Your task to perform on an android device: open app "Walmart Shopping & Grocery" (install if not already installed) and go to login screen Image 0: 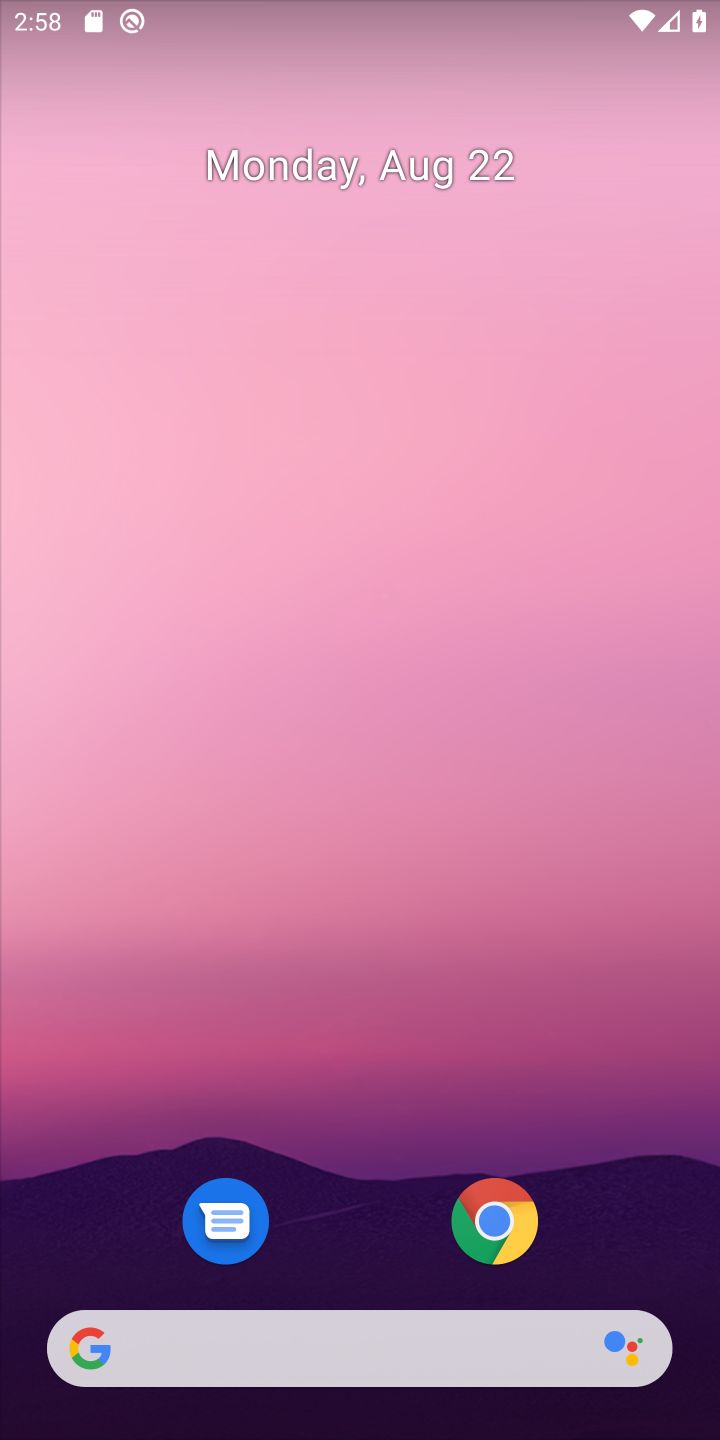
Step 0: press home button
Your task to perform on an android device: open app "Walmart Shopping & Grocery" (install if not already installed) and go to login screen Image 1: 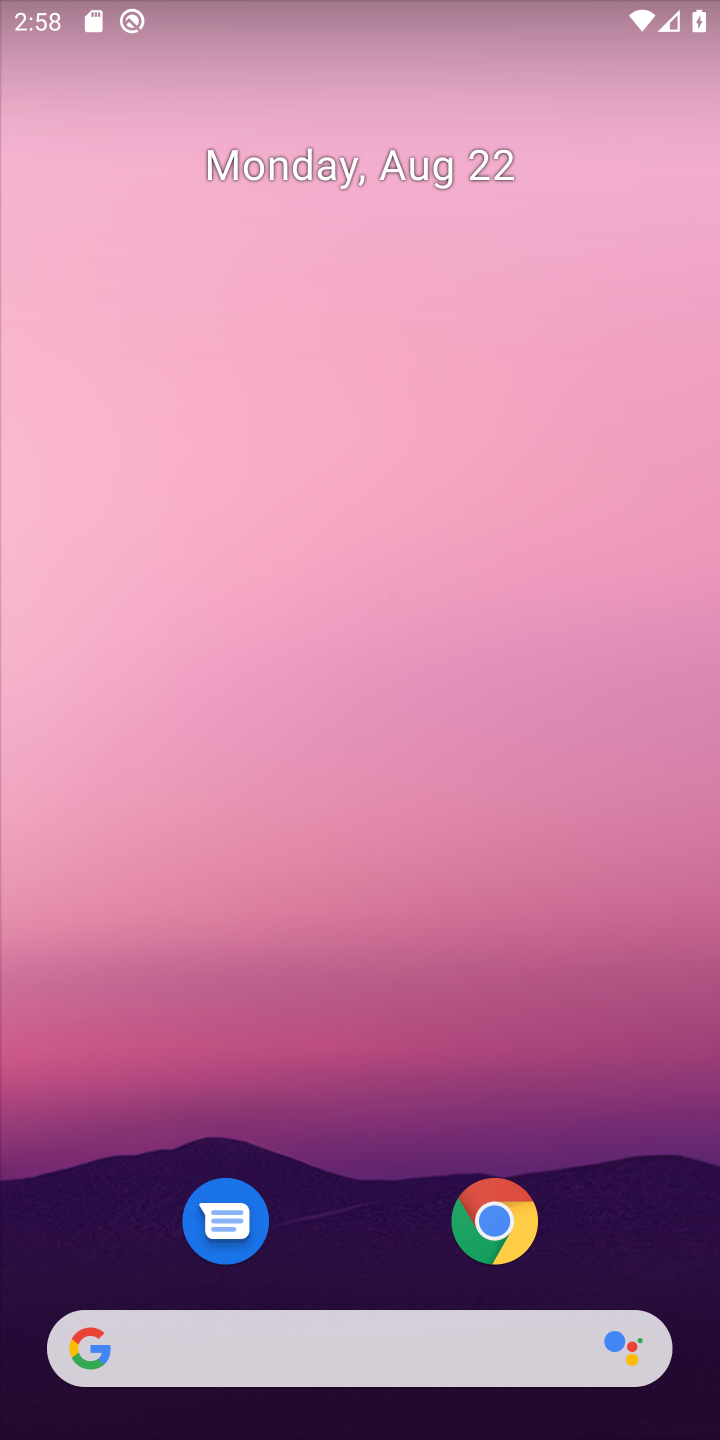
Step 1: press home button
Your task to perform on an android device: open app "Walmart Shopping & Grocery" (install if not already installed) and go to login screen Image 2: 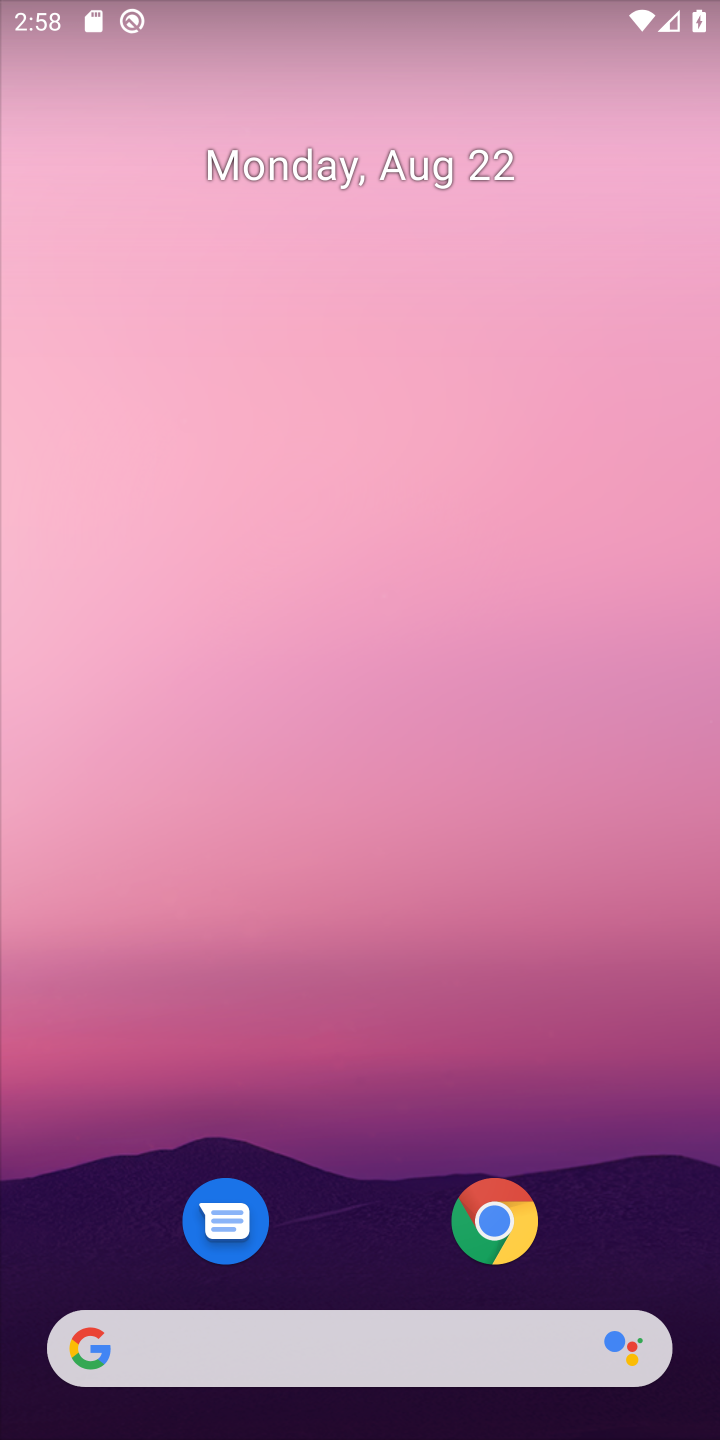
Step 2: drag from (408, 1234) to (501, 325)
Your task to perform on an android device: open app "Walmart Shopping & Grocery" (install if not already installed) and go to login screen Image 3: 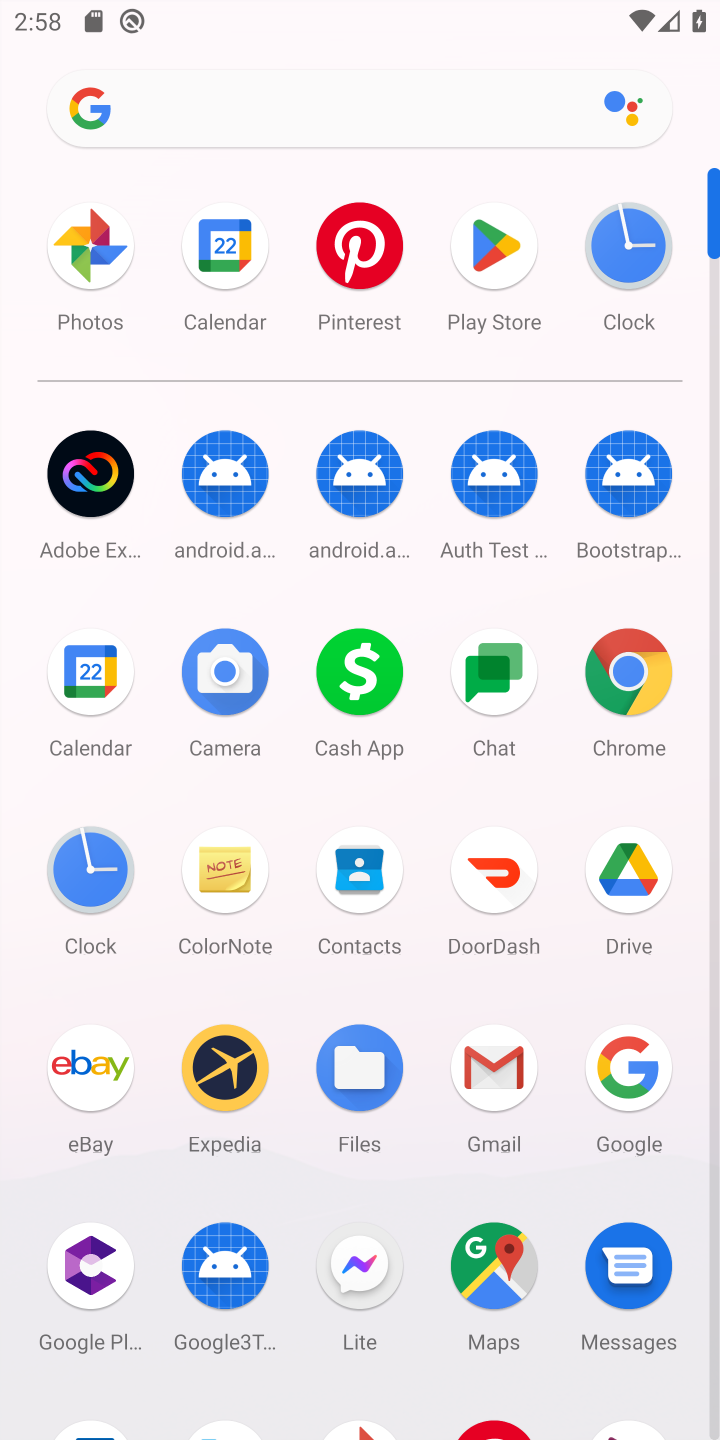
Step 3: click (491, 244)
Your task to perform on an android device: open app "Walmart Shopping & Grocery" (install if not already installed) and go to login screen Image 4: 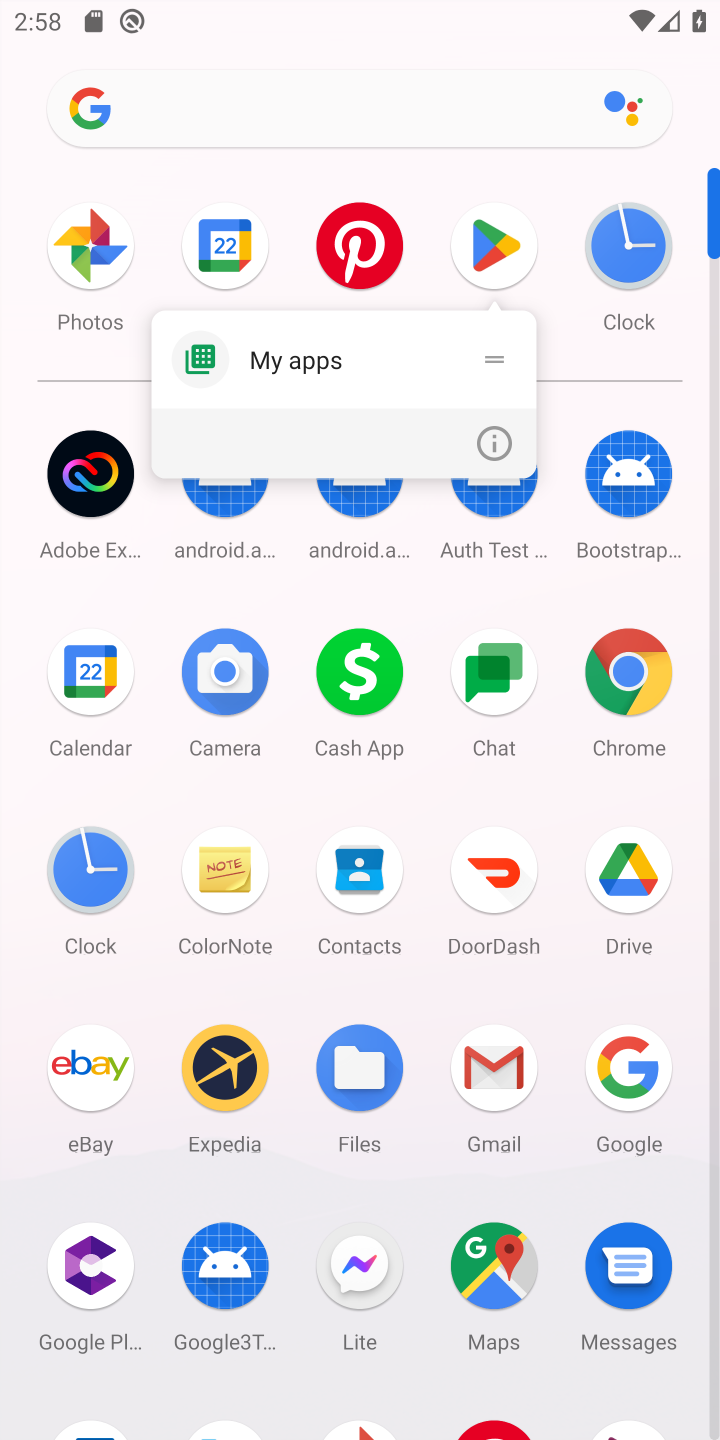
Step 4: click (490, 237)
Your task to perform on an android device: open app "Walmart Shopping & Grocery" (install if not already installed) and go to login screen Image 5: 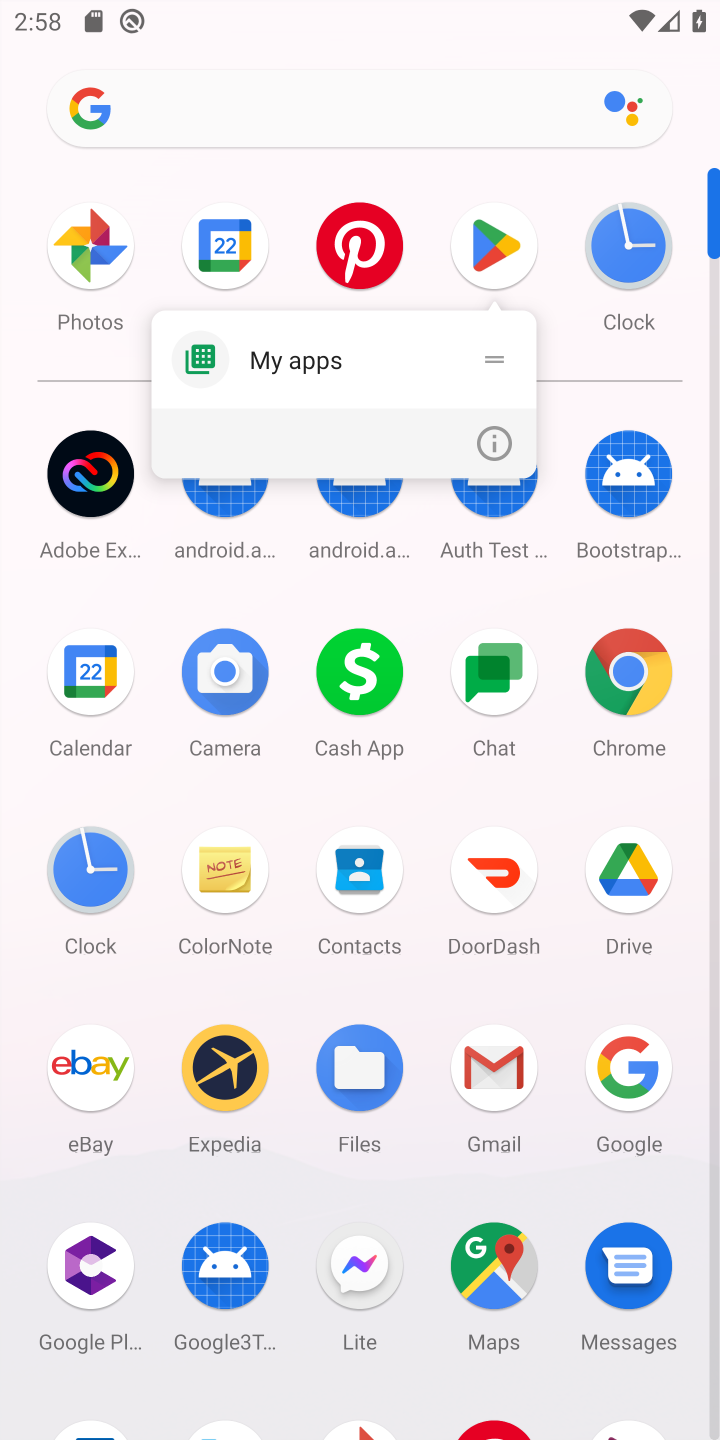
Step 5: click (490, 242)
Your task to perform on an android device: open app "Walmart Shopping & Grocery" (install if not already installed) and go to login screen Image 6: 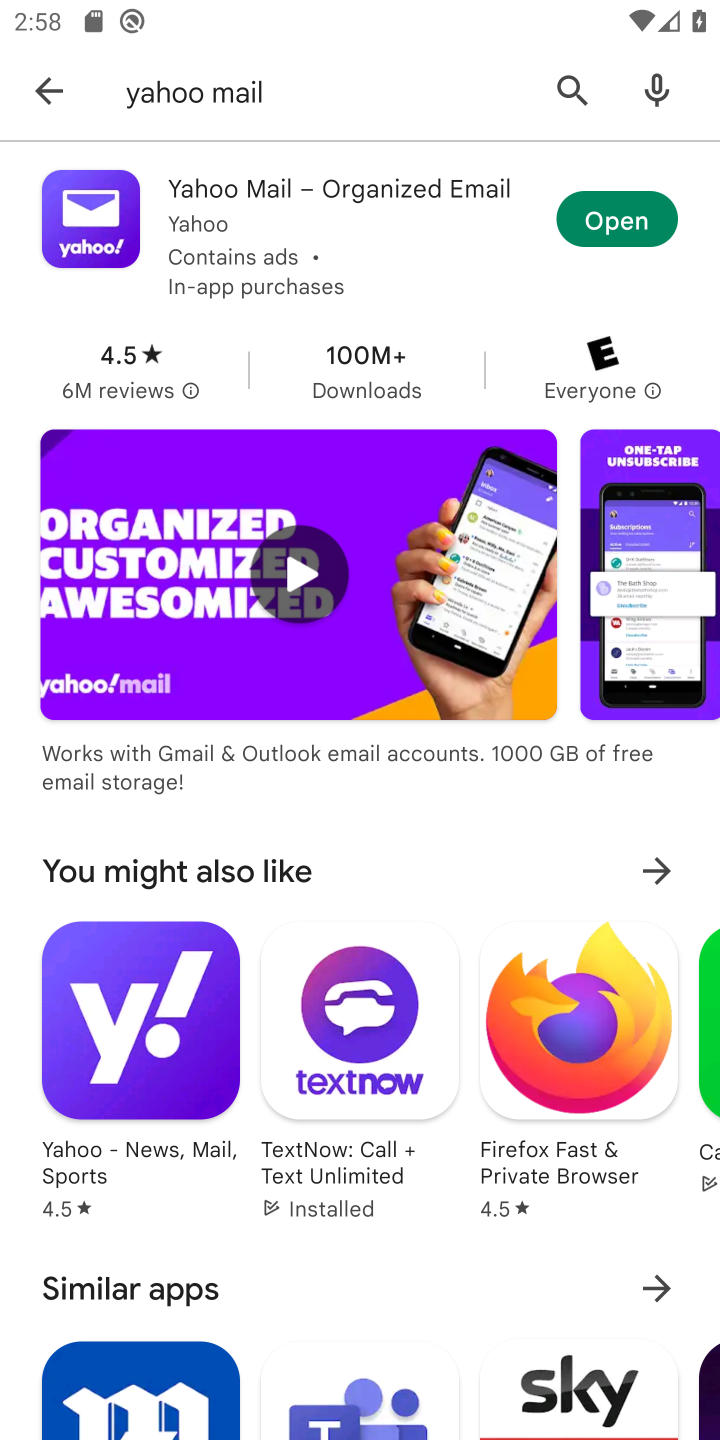
Step 6: click (575, 94)
Your task to perform on an android device: open app "Walmart Shopping & Grocery" (install if not already installed) and go to login screen Image 7: 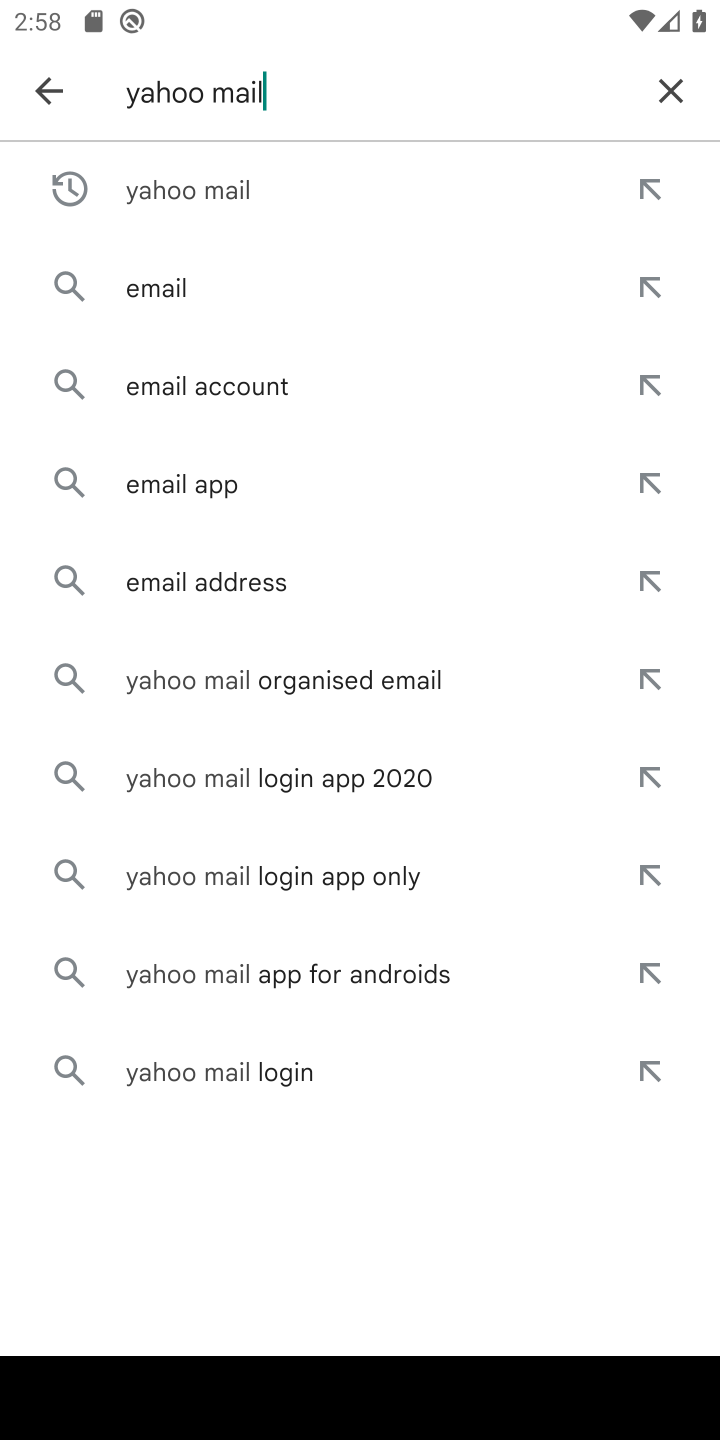
Step 7: click (669, 94)
Your task to perform on an android device: open app "Walmart Shopping & Grocery" (install if not already installed) and go to login screen Image 8: 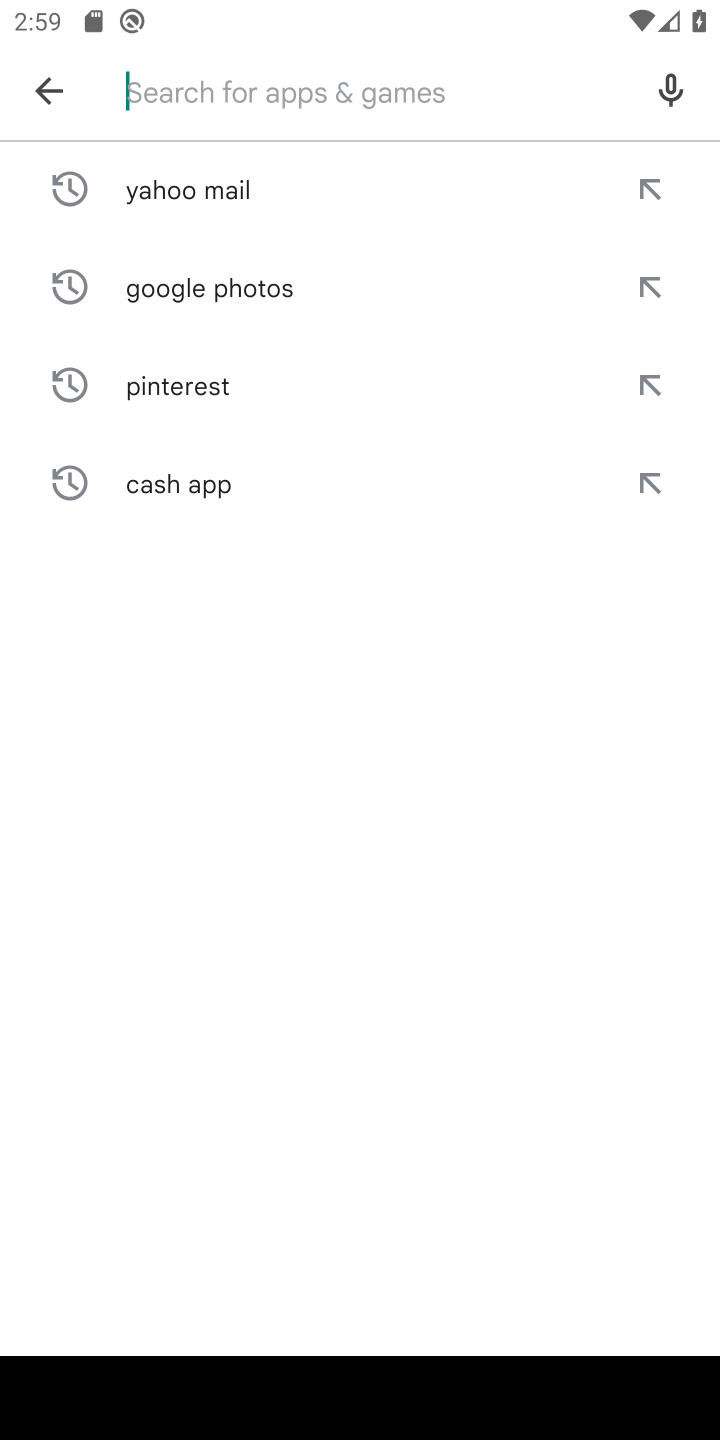
Step 8: type "Walmart Shopping & Grocery"
Your task to perform on an android device: open app "Walmart Shopping & Grocery" (install if not already installed) and go to login screen Image 9: 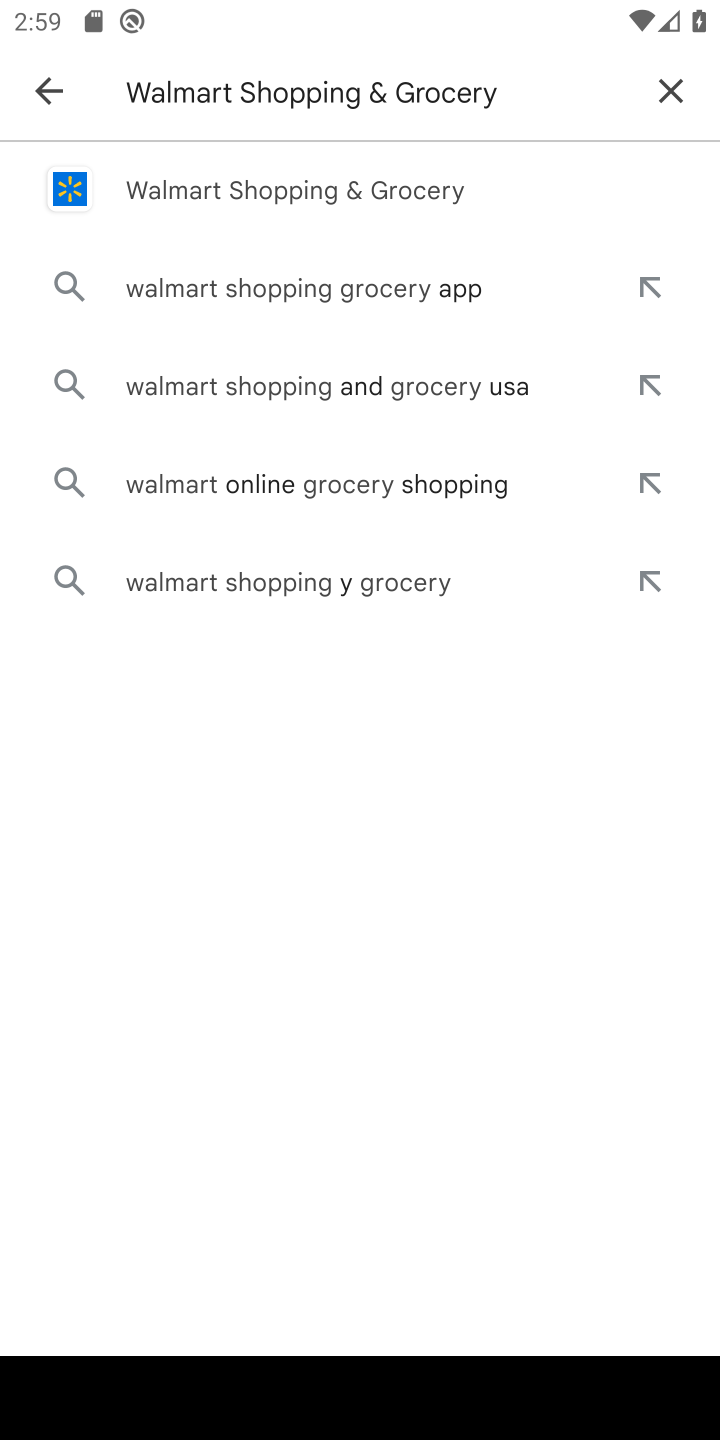
Step 9: click (294, 181)
Your task to perform on an android device: open app "Walmart Shopping & Grocery" (install if not already installed) and go to login screen Image 10: 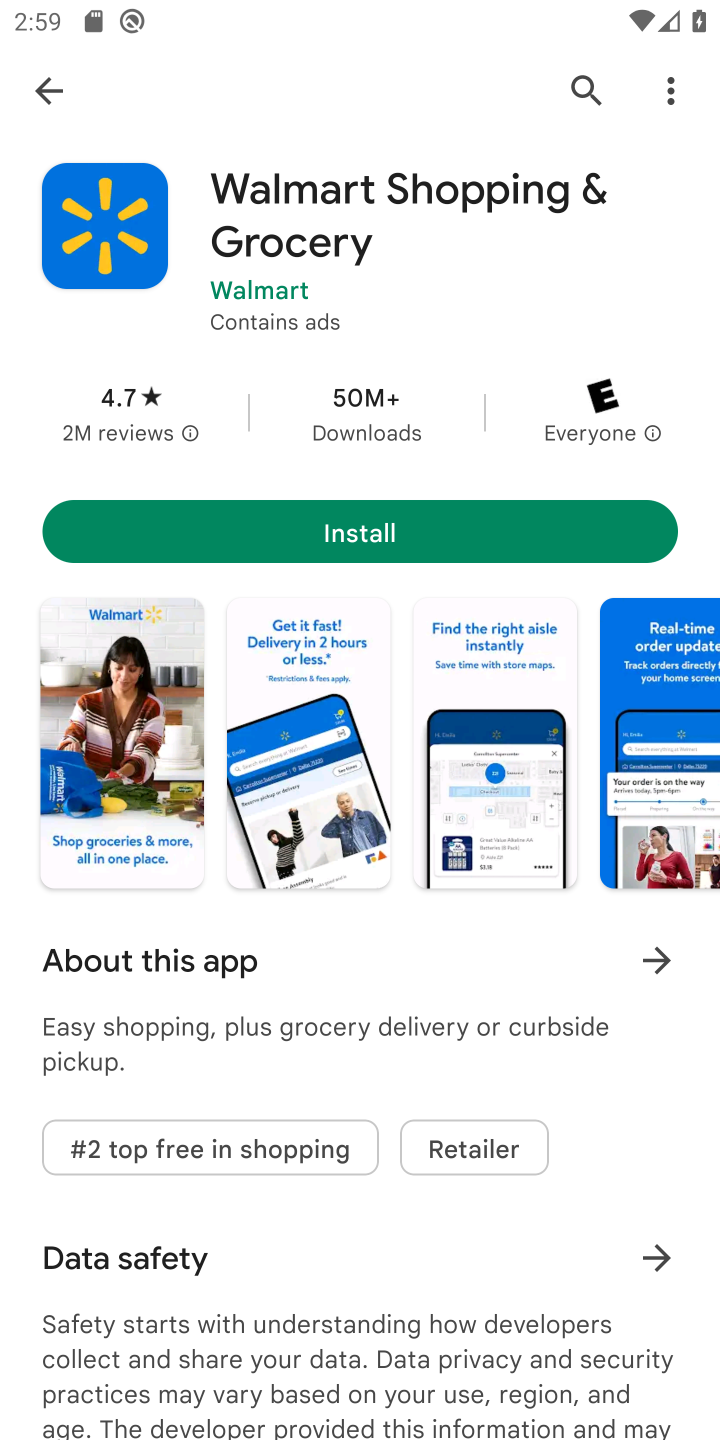
Step 10: click (383, 515)
Your task to perform on an android device: open app "Walmart Shopping & Grocery" (install if not already installed) and go to login screen Image 11: 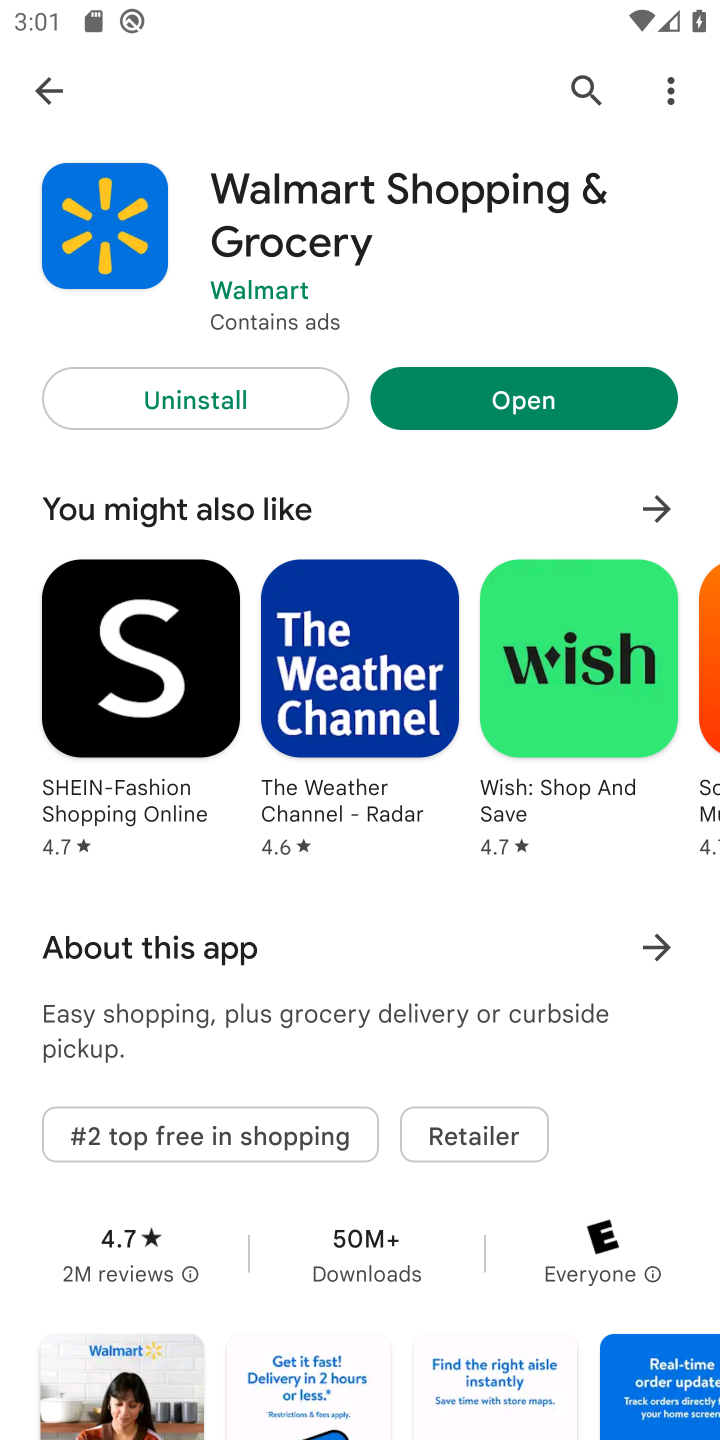
Step 11: click (525, 400)
Your task to perform on an android device: open app "Walmart Shopping & Grocery" (install if not already installed) and go to login screen Image 12: 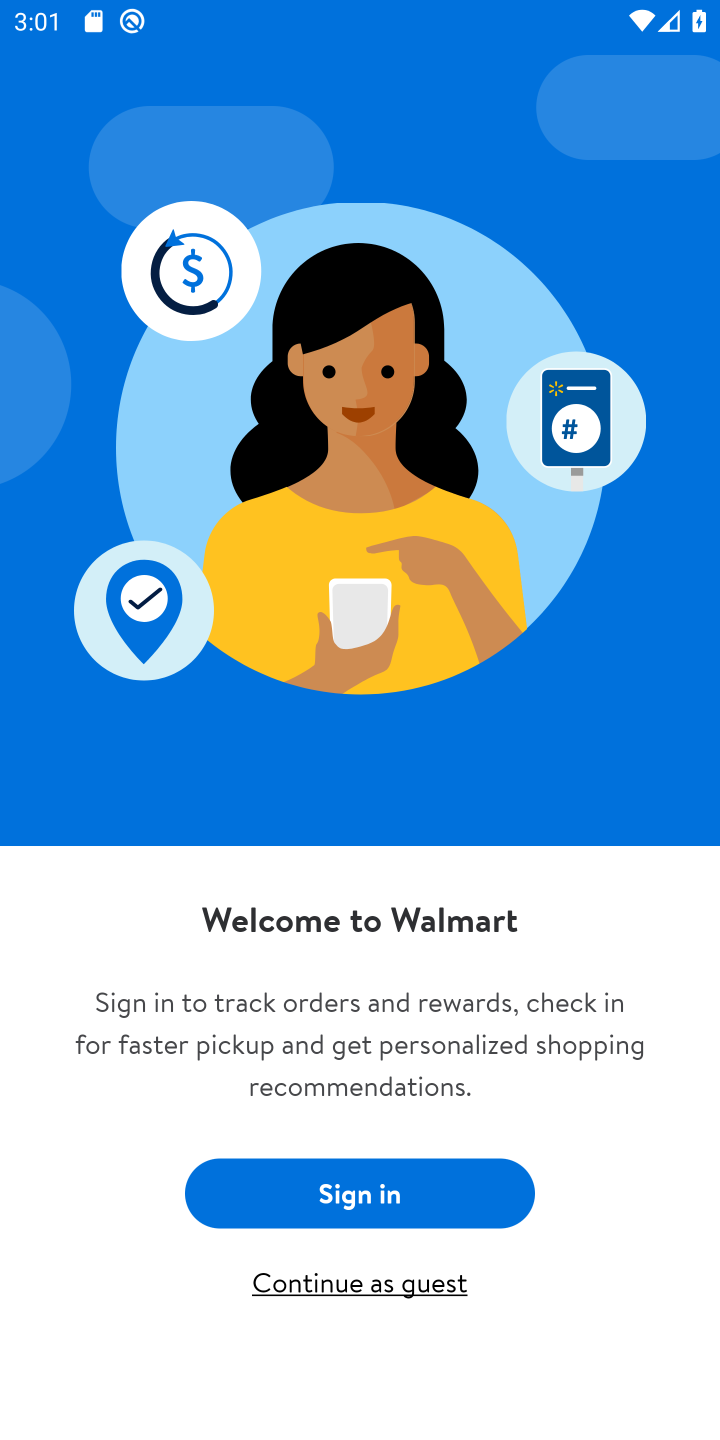
Step 12: click (367, 1190)
Your task to perform on an android device: open app "Walmart Shopping & Grocery" (install if not already installed) and go to login screen Image 13: 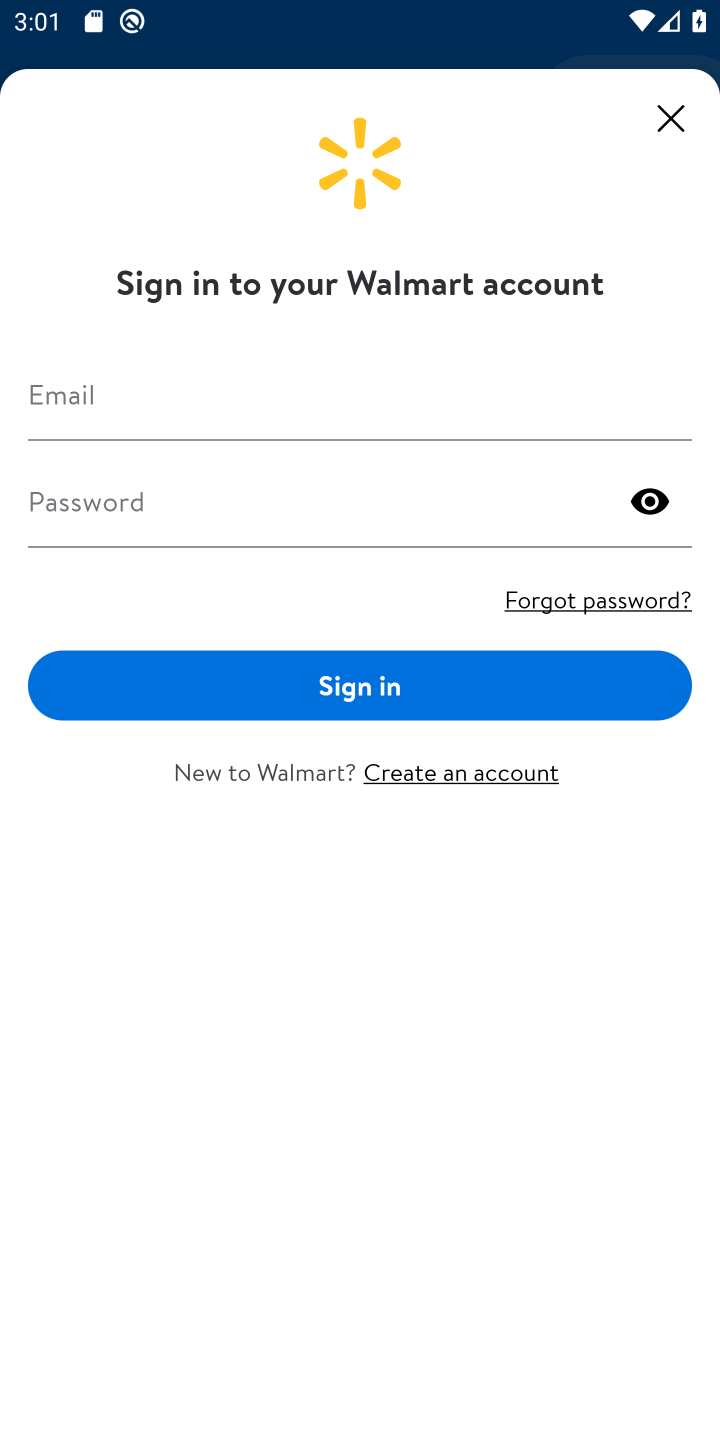
Step 13: click (630, 601)
Your task to perform on an android device: open app "Walmart Shopping & Grocery" (install if not already installed) and go to login screen Image 14: 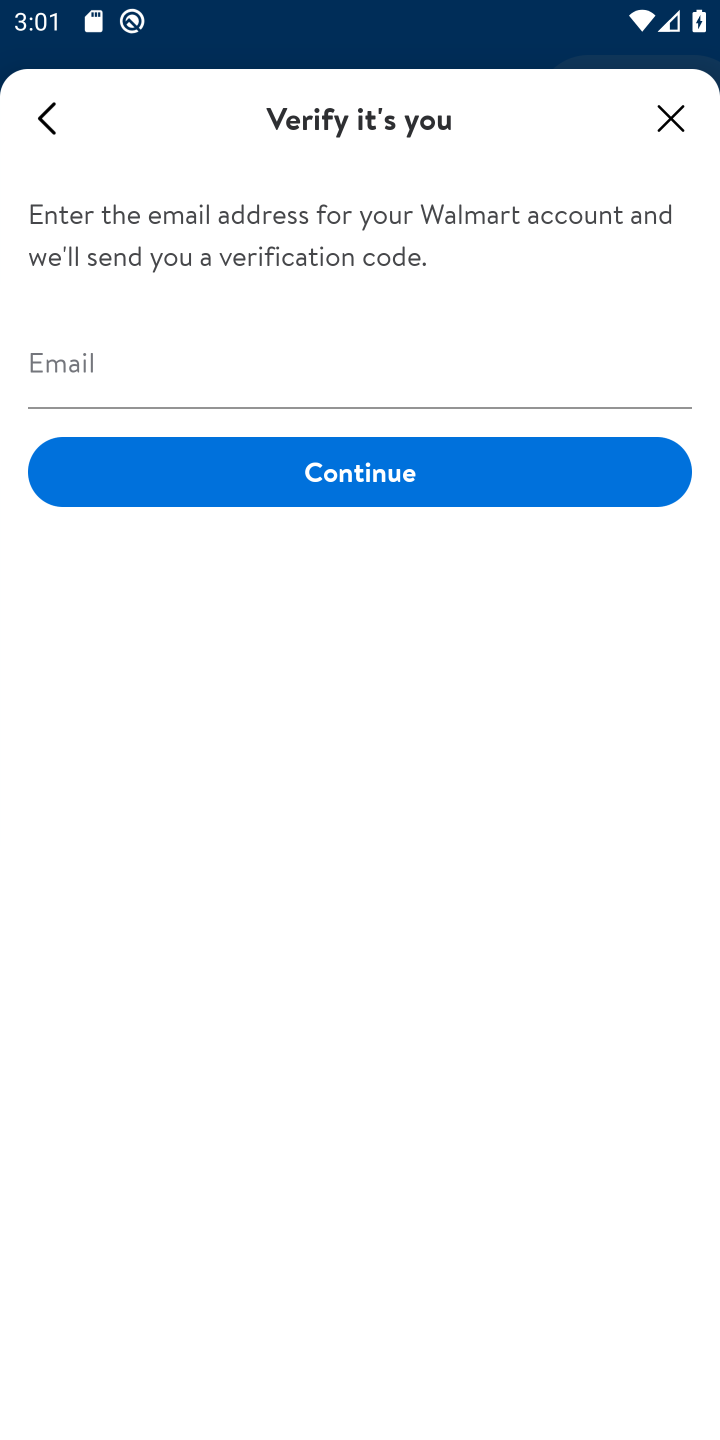
Step 14: task complete